Your task to perform on an android device: change the clock display to digital Image 0: 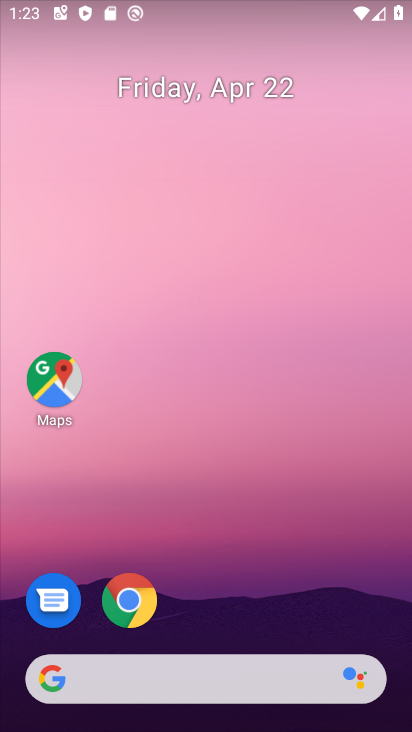
Step 0: click (128, 602)
Your task to perform on an android device: change the clock display to digital Image 1: 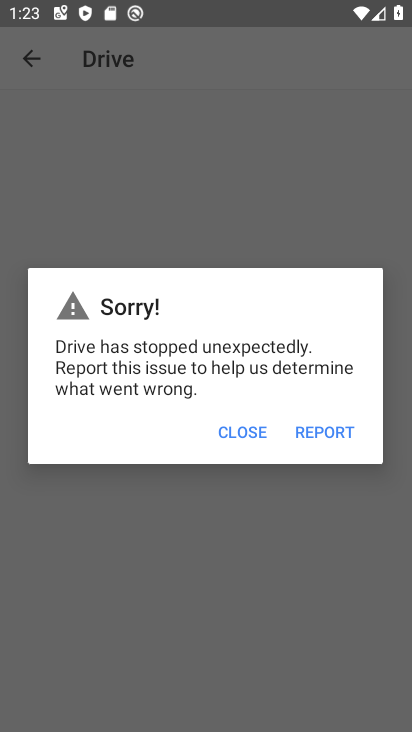
Step 1: press home button
Your task to perform on an android device: change the clock display to digital Image 2: 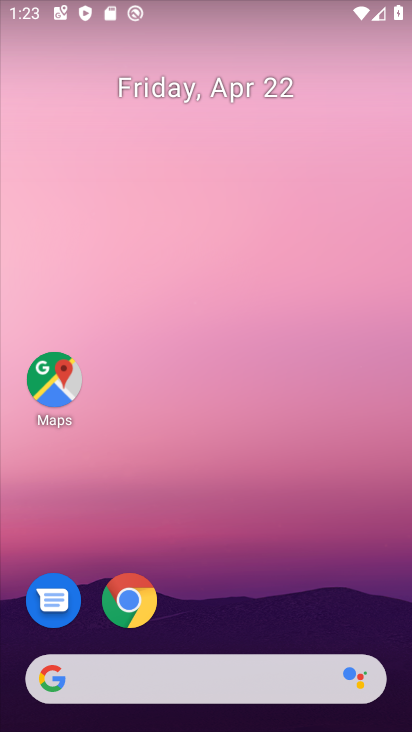
Step 2: drag from (225, 728) to (225, 134)
Your task to perform on an android device: change the clock display to digital Image 3: 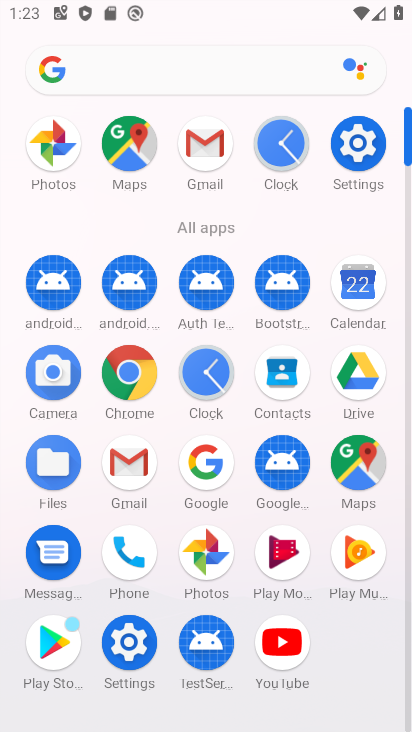
Step 3: click (282, 150)
Your task to perform on an android device: change the clock display to digital Image 4: 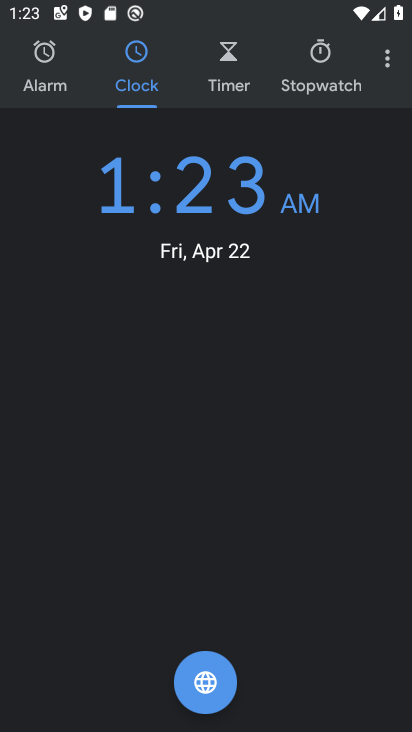
Step 4: click (387, 64)
Your task to perform on an android device: change the clock display to digital Image 5: 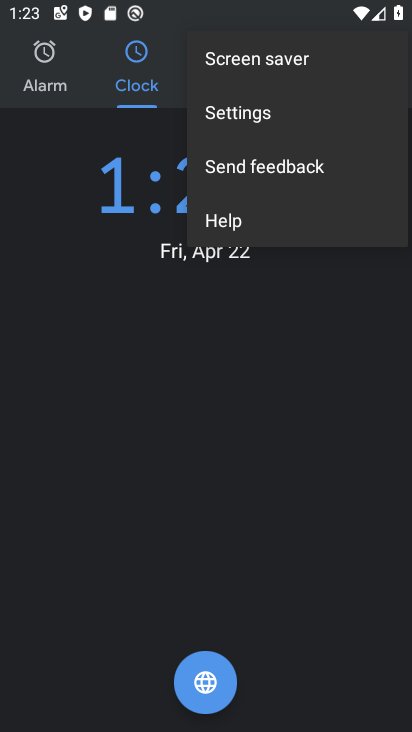
Step 5: click (229, 109)
Your task to perform on an android device: change the clock display to digital Image 6: 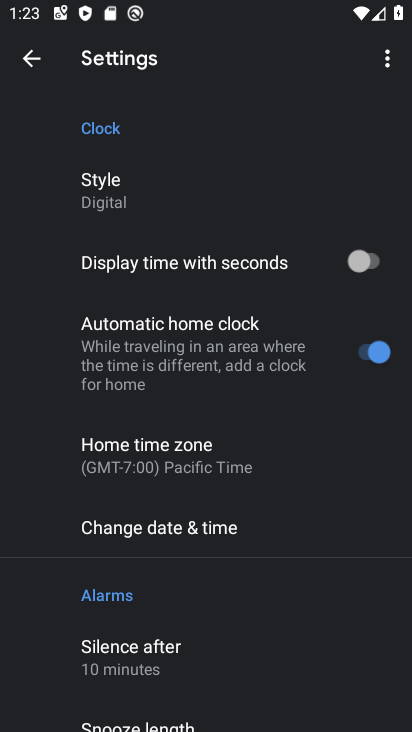
Step 6: drag from (160, 608) to (158, 399)
Your task to perform on an android device: change the clock display to digital Image 7: 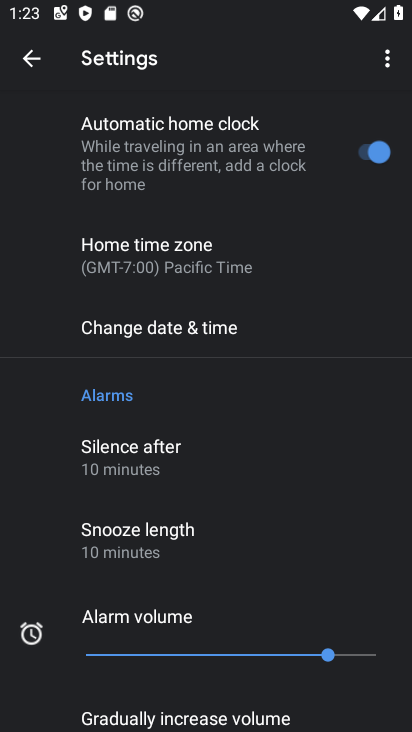
Step 7: drag from (200, 98) to (213, 466)
Your task to perform on an android device: change the clock display to digital Image 8: 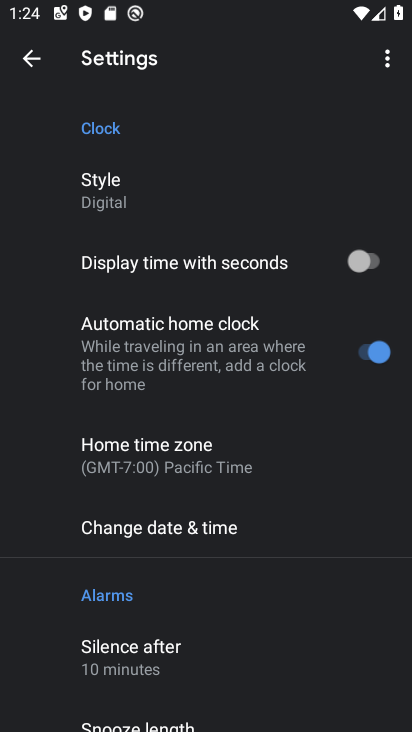
Step 8: click (106, 199)
Your task to perform on an android device: change the clock display to digital Image 9: 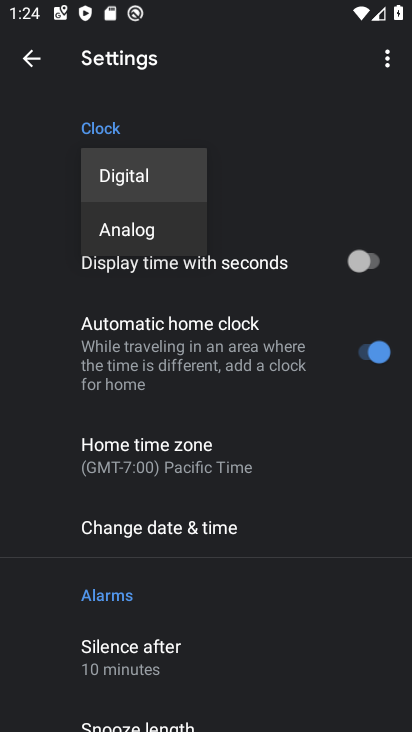
Step 9: click (117, 175)
Your task to perform on an android device: change the clock display to digital Image 10: 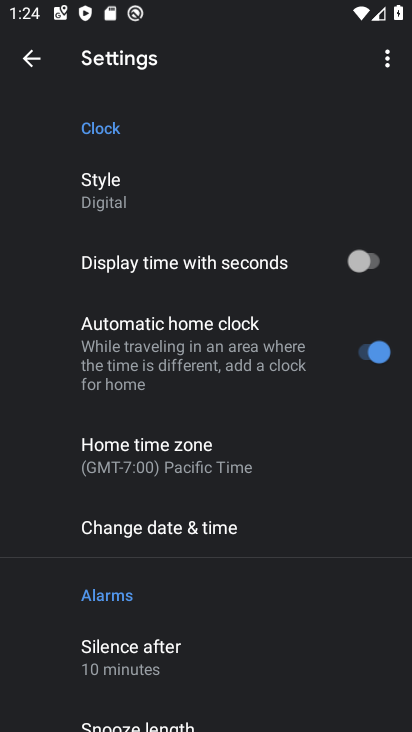
Step 10: task complete